Your task to perform on an android device: Open privacy settings Image 0: 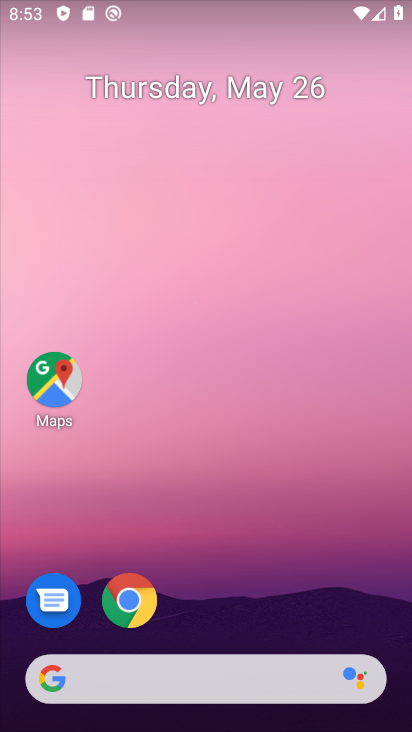
Step 0: drag from (223, 628) to (281, 90)
Your task to perform on an android device: Open privacy settings Image 1: 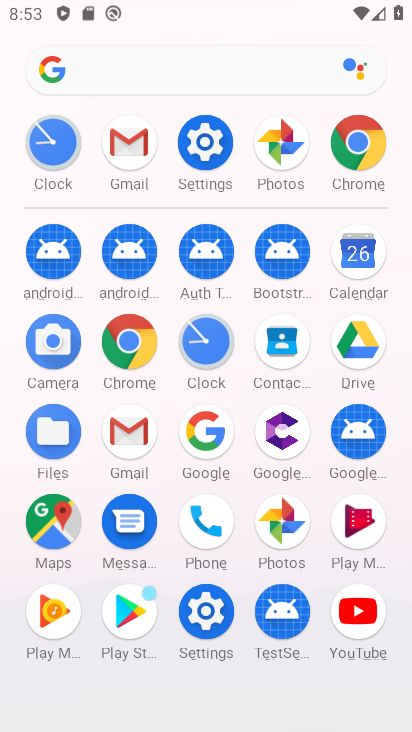
Step 1: click (205, 153)
Your task to perform on an android device: Open privacy settings Image 2: 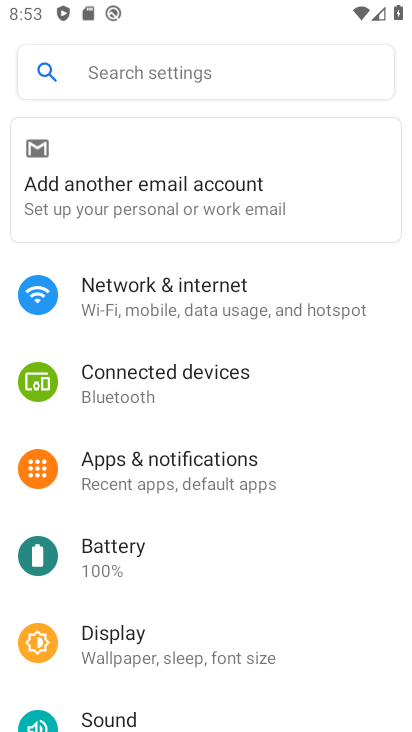
Step 2: drag from (153, 581) to (280, 63)
Your task to perform on an android device: Open privacy settings Image 3: 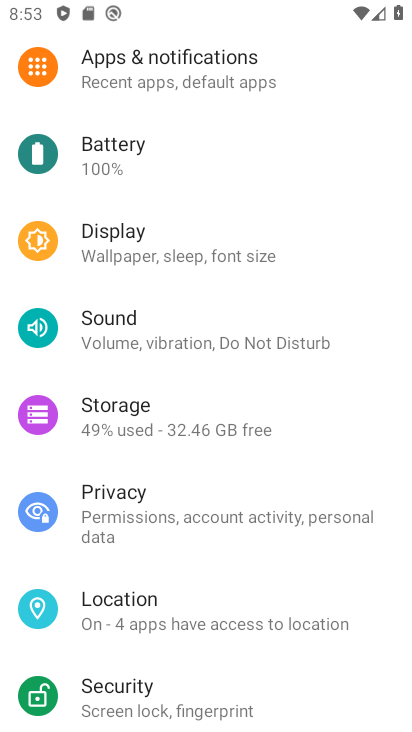
Step 3: click (174, 535)
Your task to perform on an android device: Open privacy settings Image 4: 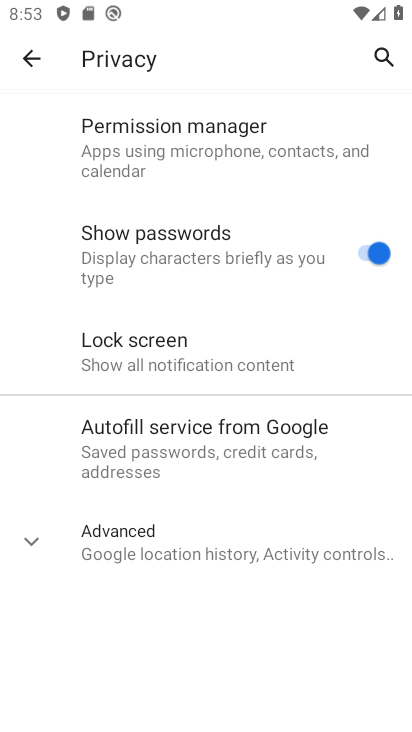
Step 4: task complete